Your task to perform on an android device: Go to Google maps Image 0: 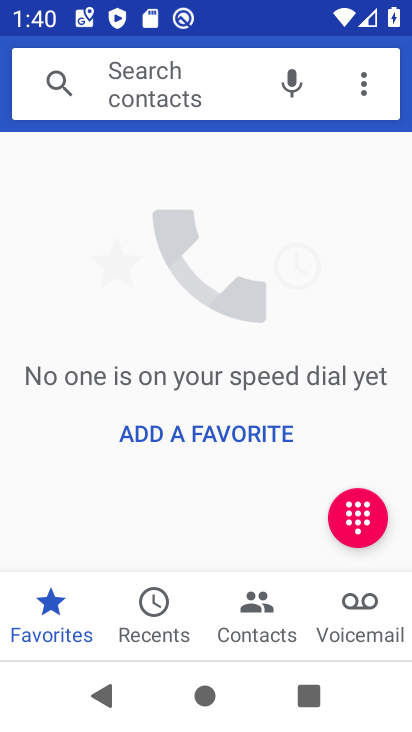
Step 0: press home button
Your task to perform on an android device: Go to Google maps Image 1: 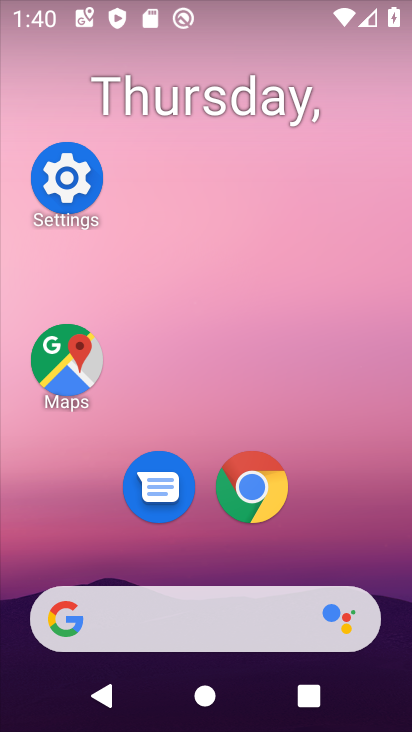
Step 1: click (54, 377)
Your task to perform on an android device: Go to Google maps Image 2: 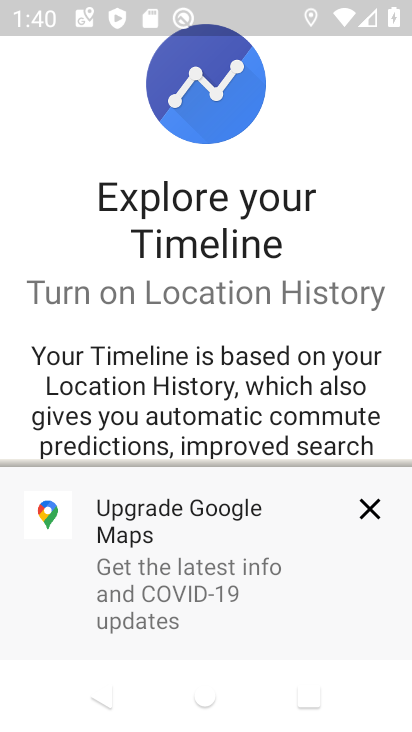
Step 2: task complete